Your task to perform on an android device: When is my next appointment? Image 0: 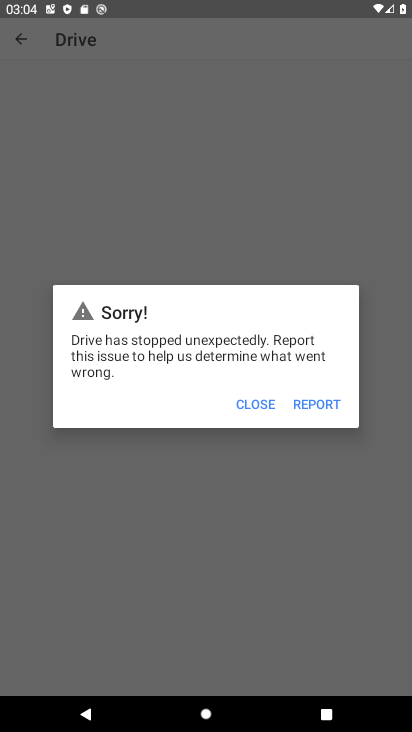
Step 0: press home button
Your task to perform on an android device: When is my next appointment? Image 1: 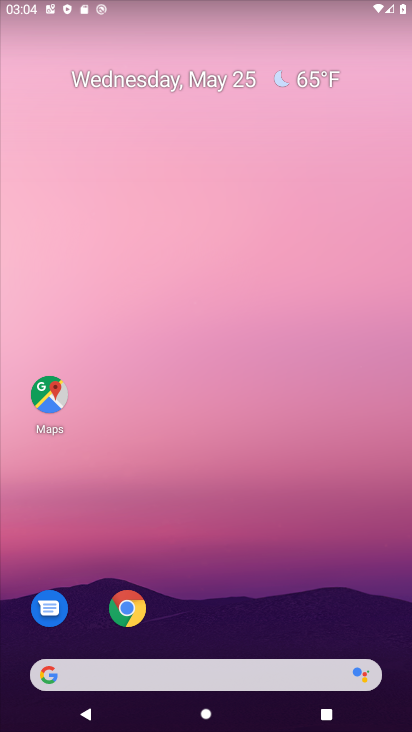
Step 1: drag from (250, 631) to (244, 2)
Your task to perform on an android device: When is my next appointment? Image 2: 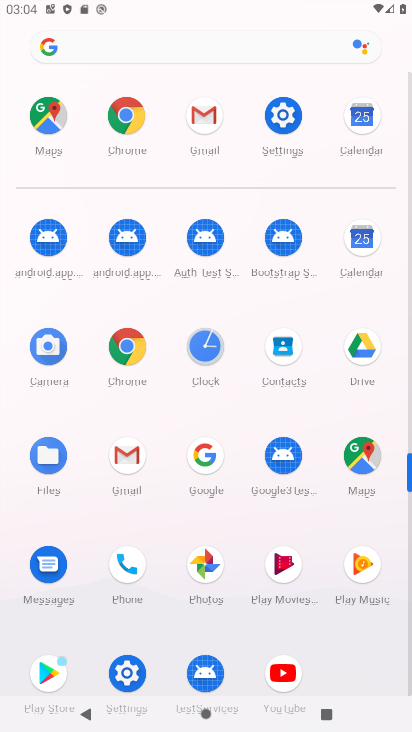
Step 2: click (363, 120)
Your task to perform on an android device: When is my next appointment? Image 3: 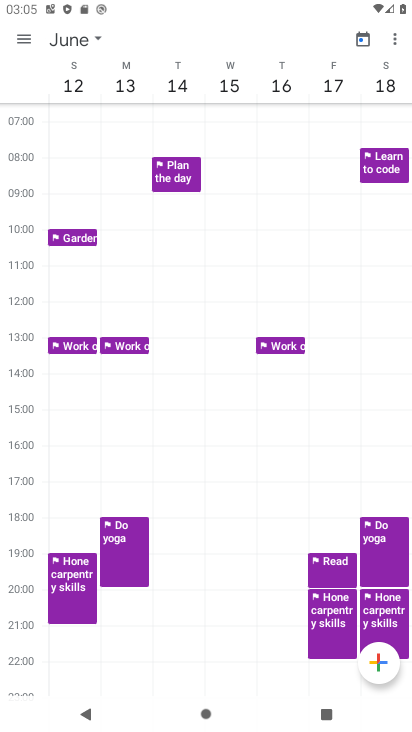
Step 3: click (361, 37)
Your task to perform on an android device: When is my next appointment? Image 4: 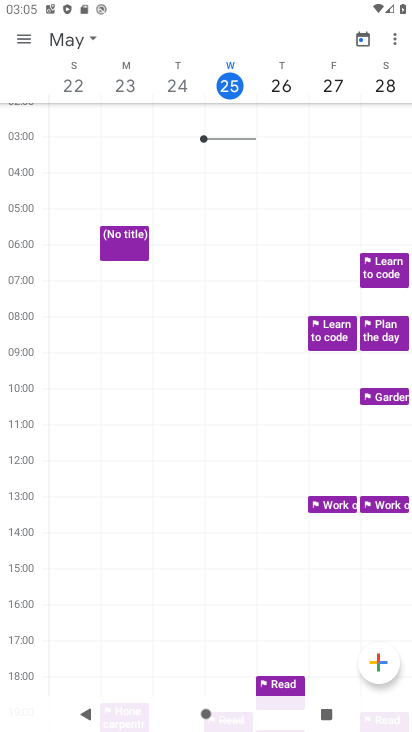
Step 4: click (29, 40)
Your task to perform on an android device: When is my next appointment? Image 5: 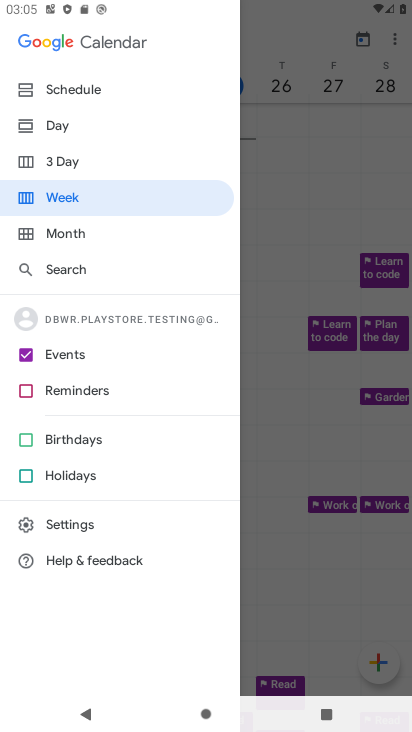
Step 5: click (58, 88)
Your task to perform on an android device: When is my next appointment? Image 6: 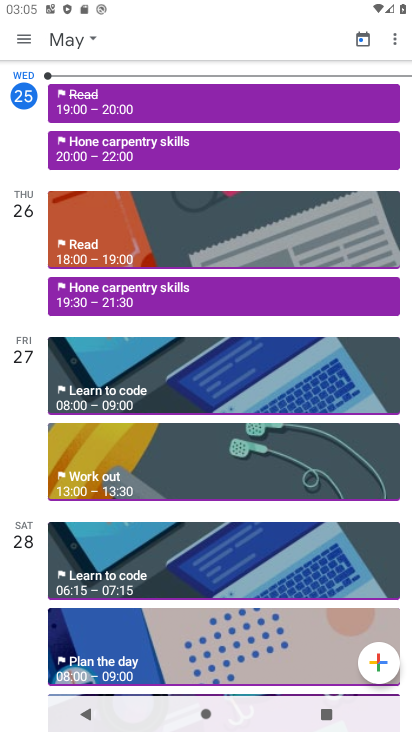
Step 6: click (94, 106)
Your task to perform on an android device: When is my next appointment? Image 7: 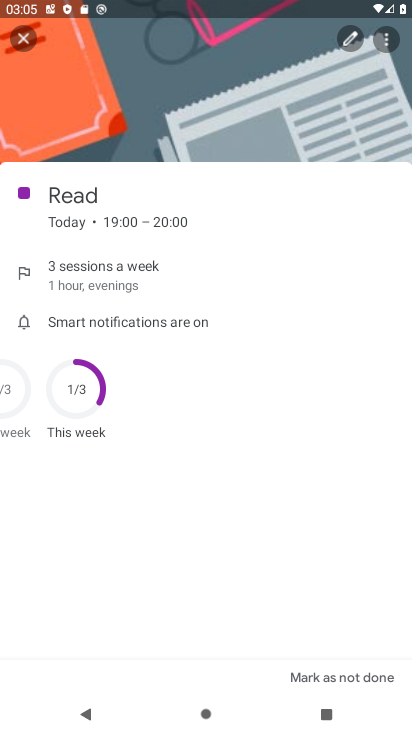
Step 7: task complete